Your task to perform on an android device: Open Android settings Image 0: 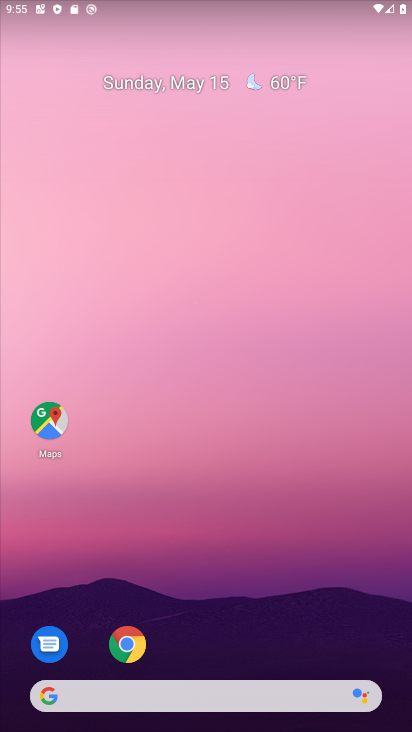
Step 0: drag from (180, 643) to (171, 125)
Your task to perform on an android device: Open Android settings Image 1: 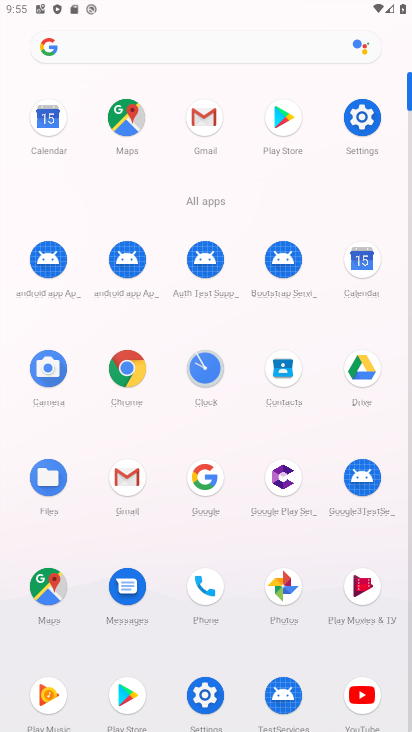
Step 1: click (359, 123)
Your task to perform on an android device: Open Android settings Image 2: 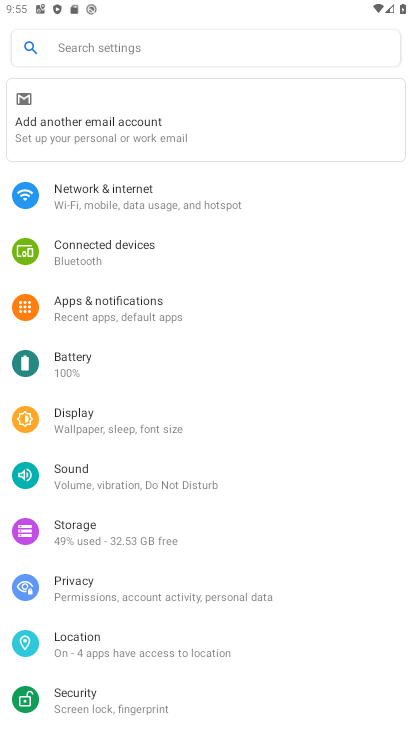
Step 2: task complete